Your task to perform on an android device: Open battery settings Image 0: 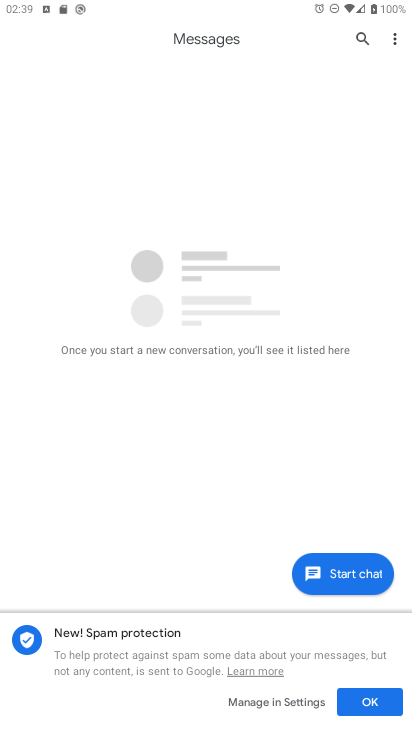
Step 0: press home button
Your task to perform on an android device: Open battery settings Image 1: 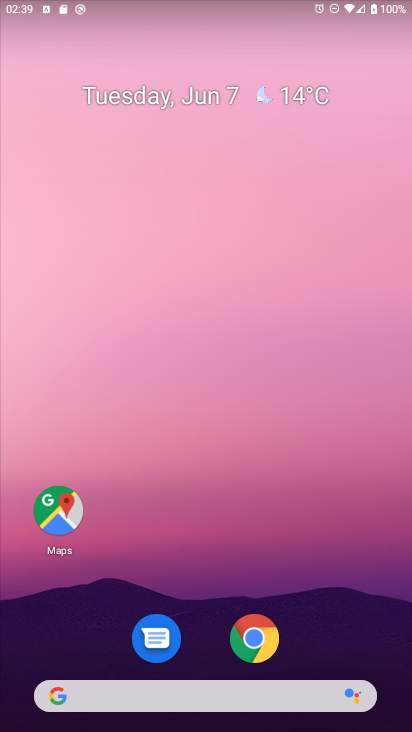
Step 1: drag from (216, 719) to (152, 123)
Your task to perform on an android device: Open battery settings Image 2: 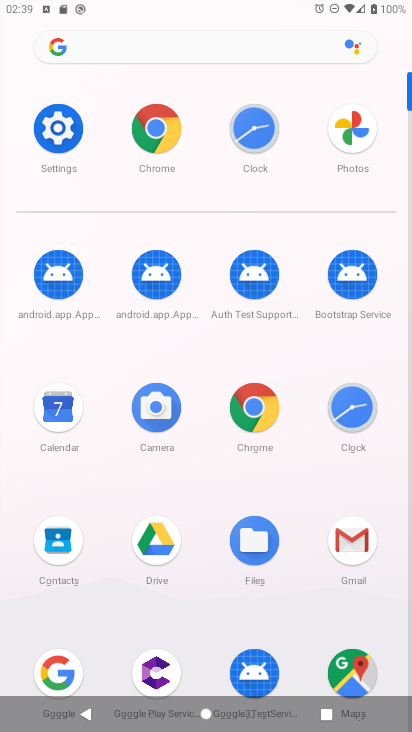
Step 2: click (59, 145)
Your task to perform on an android device: Open battery settings Image 3: 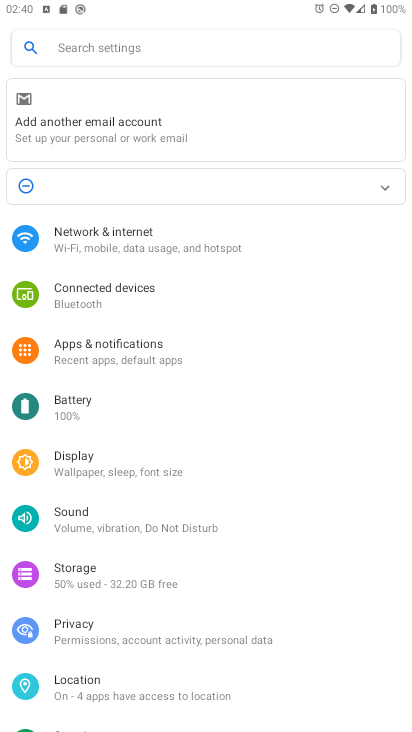
Step 3: click (88, 412)
Your task to perform on an android device: Open battery settings Image 4: 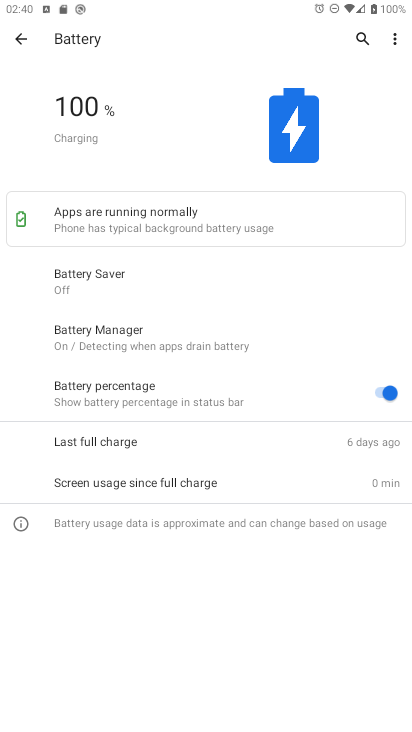
Step 4: task complete